Your task to perform on an android device: toggle javascript in the chrome app Image 0: 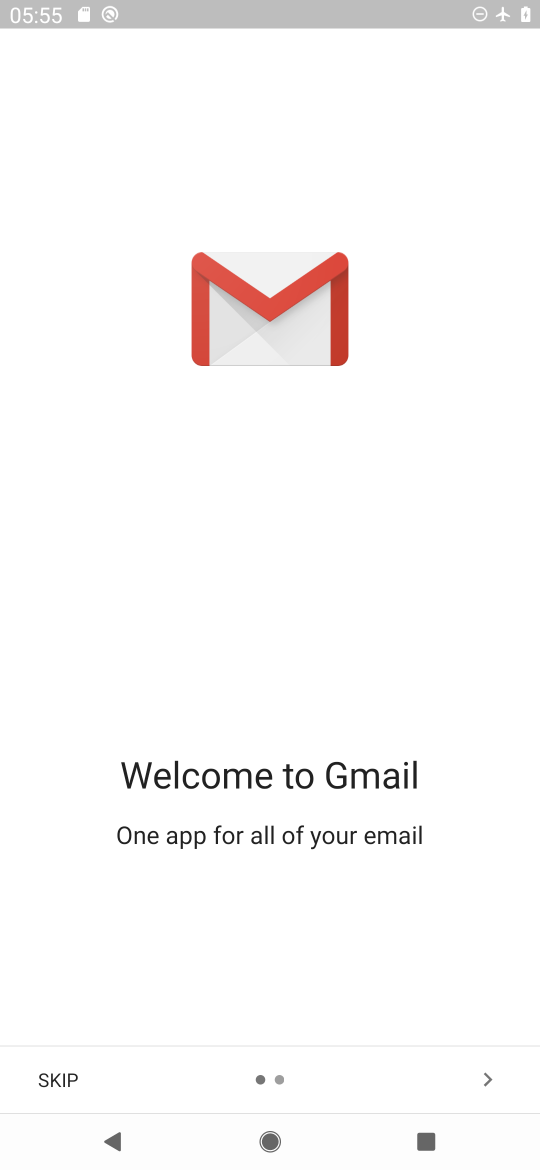
Step 0: press home button
Your task to perform on an android device: toggle javascript in the chrome app Image 1: 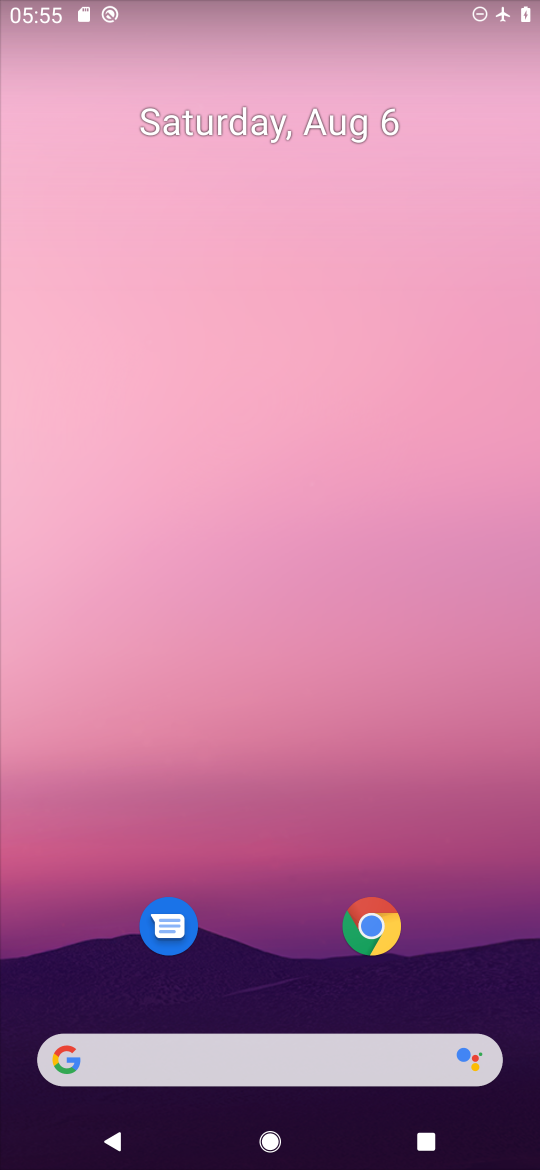
Step 1: click (351, 925)
Your task to perform on an android device: toggle javascript in the chrome app Image 2: 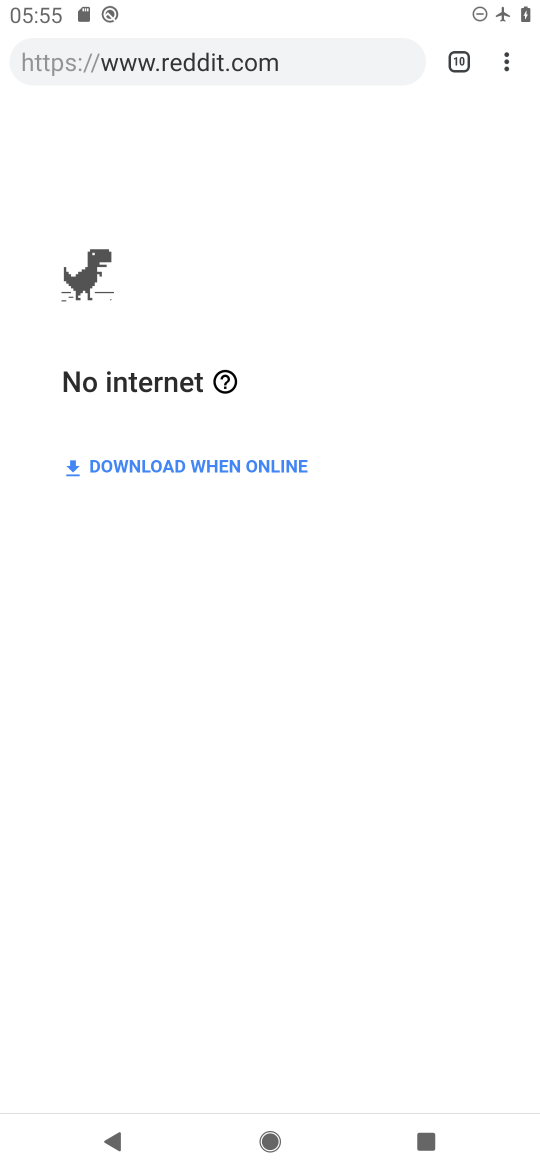
Step 2: click (504, 57)
Your task to perform on an android device: toggle javascript in the chrome app Image 3: 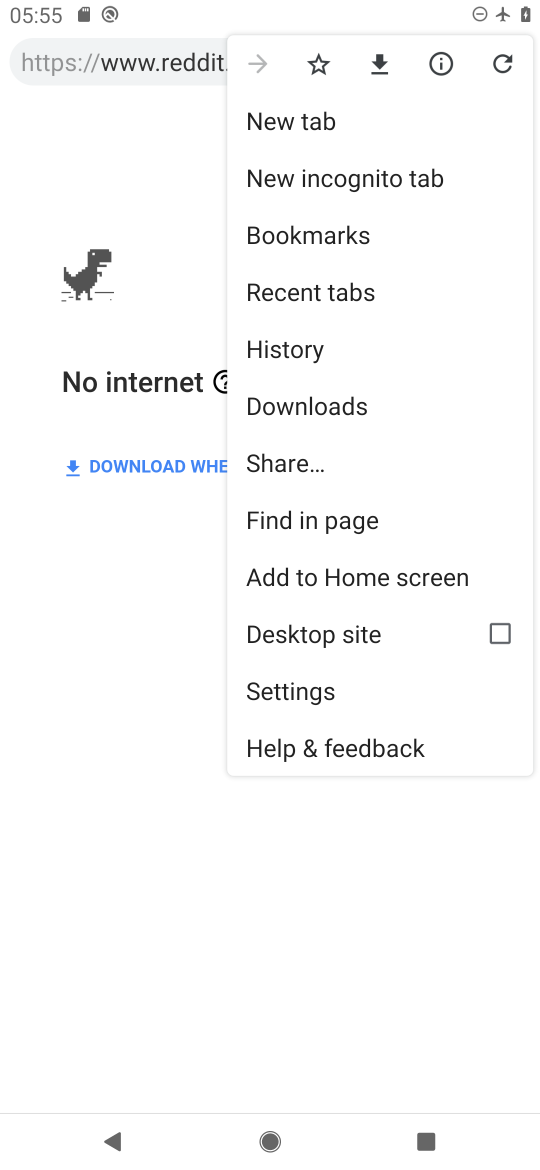
Step 3: click (361, 699)
Your task to perform on an android device: toggle javascript in the chrome app Image 4: 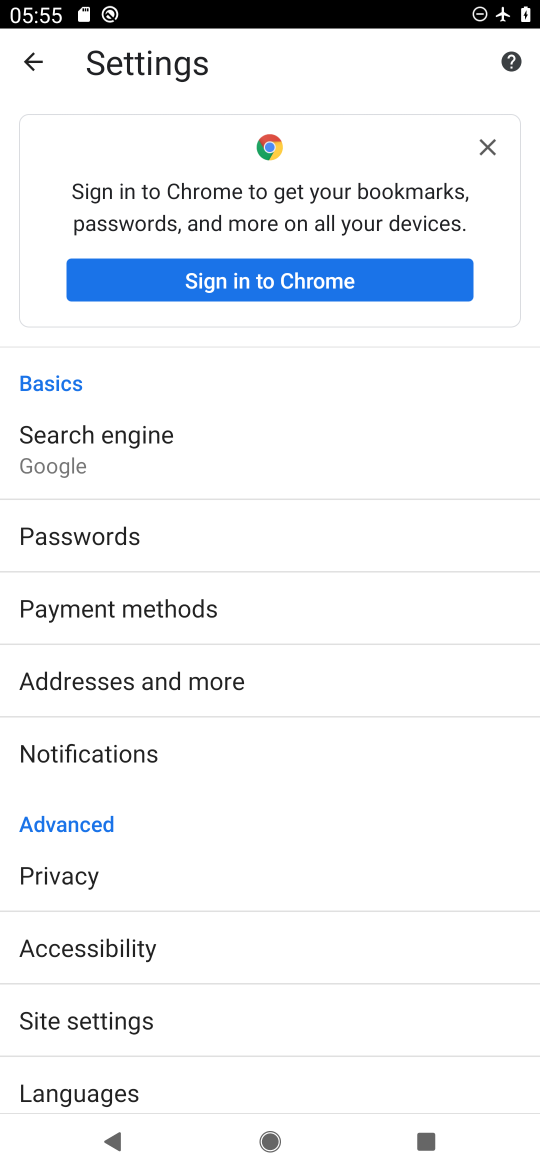
Step 4: drag from (159, 749) to (161, 530)
Your task to perform on an android device: toggle javascript in the chrome app Image 5: 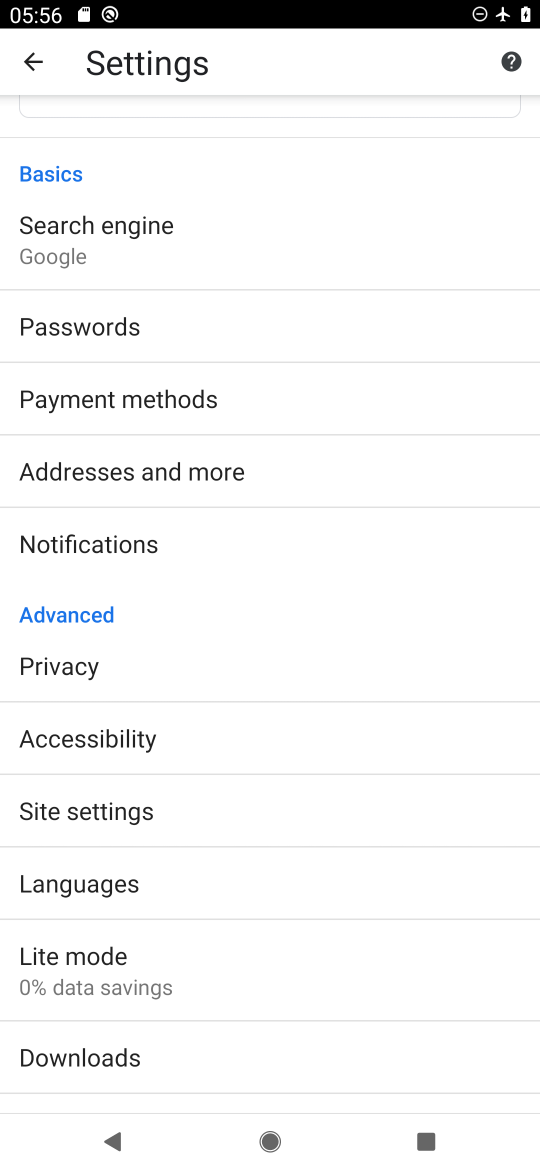
Step 5: click (97, 816)
Your task to perform on an android device: toggle javascript in the chrome app Image 6: 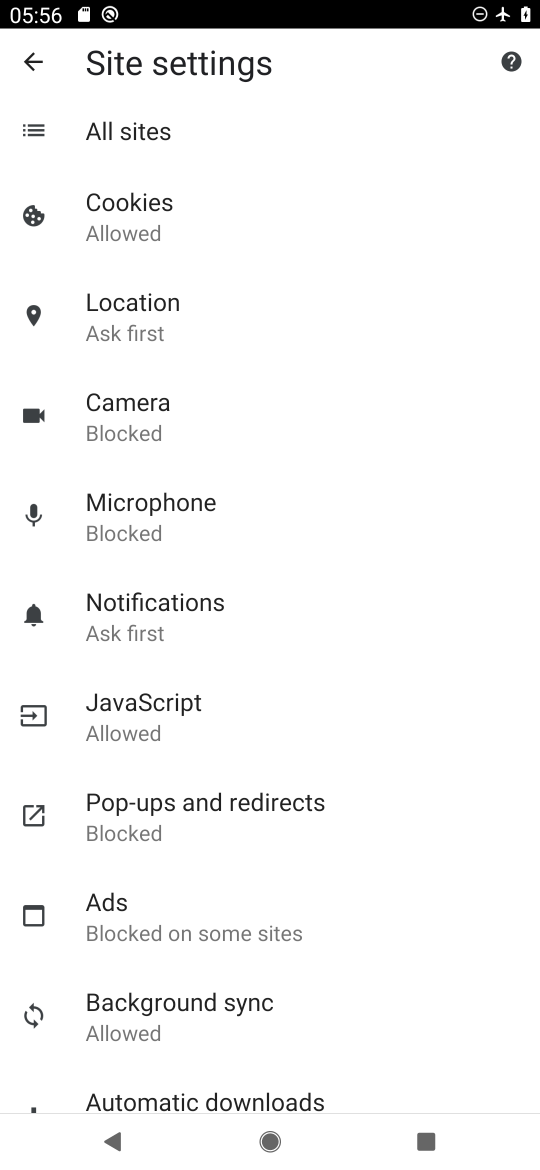
Step 6: click (235, 687)
Your task to perform on an android device: toggle javascript in the chrome app Image 7: 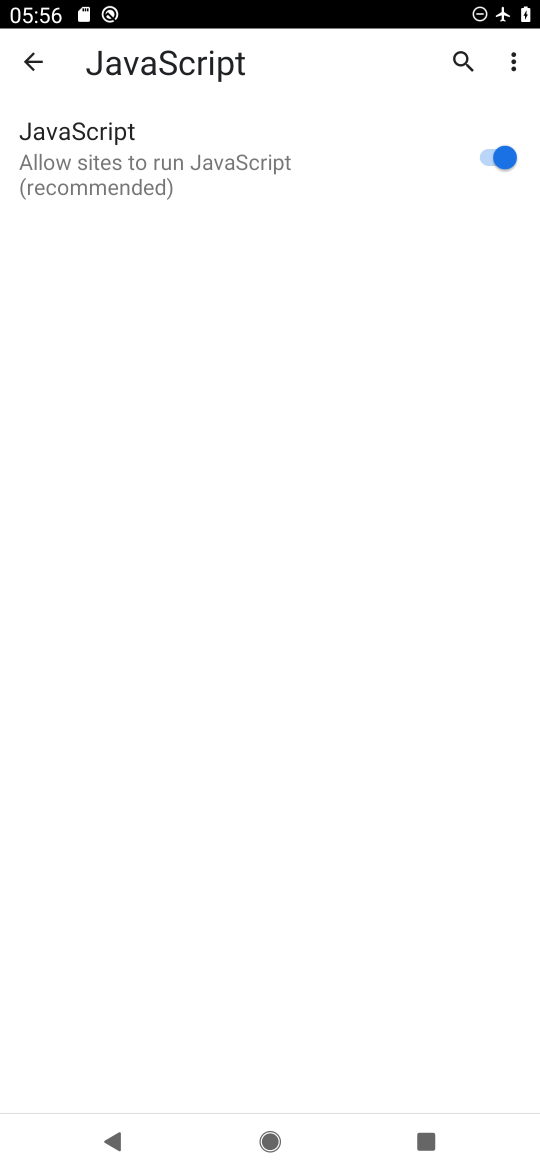
Step 7: click (480, 169)
Your task to perform on an android device: toggle javascript in the chrome app Image 8: 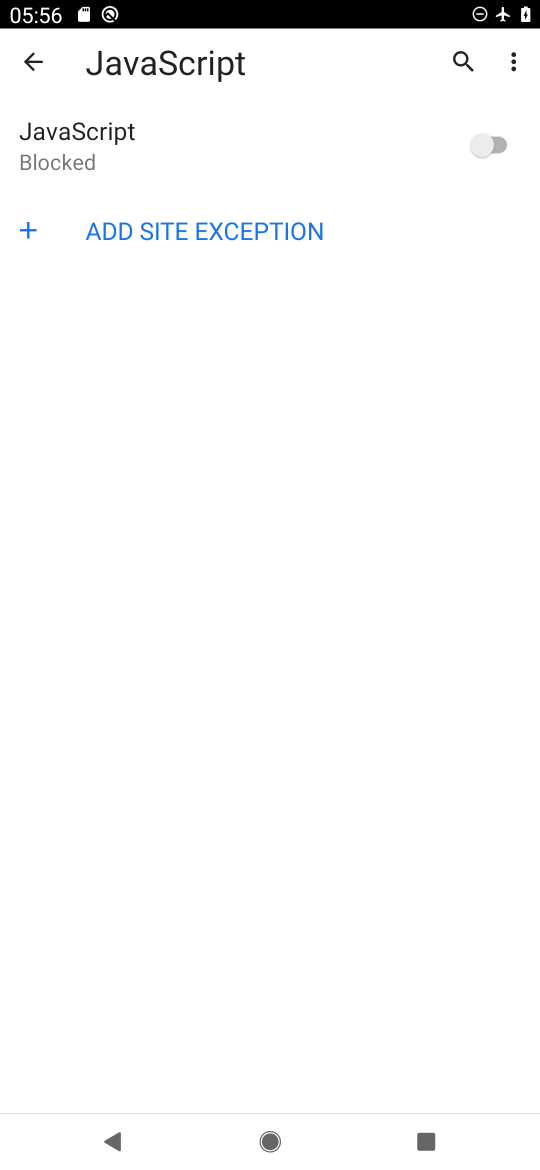
Step 8: task complete